Your task to perform on an android device: check data usage Image 0: 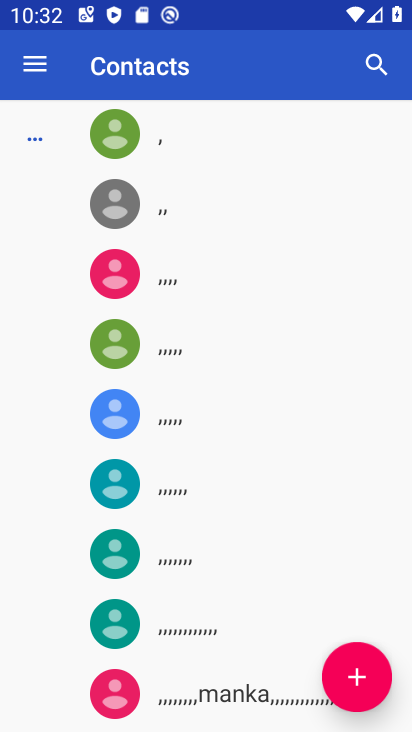
Step 0: press home button
Your task to perform on an android device: check data usage Image 1: 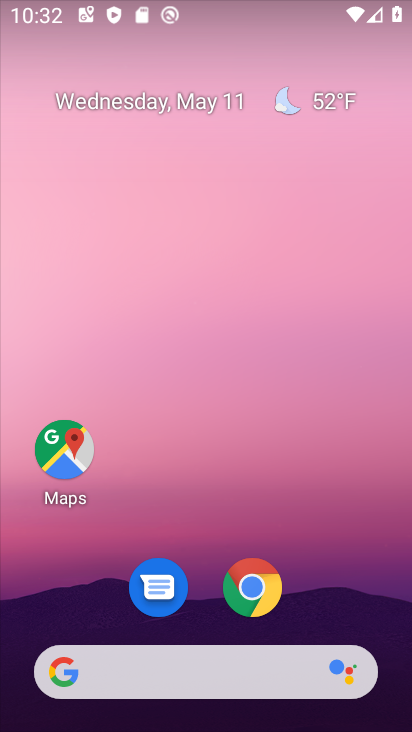
Step 1: drag from (222, 684) to (276, 317)
Your task to perform on an android device: check data usage Image 2: 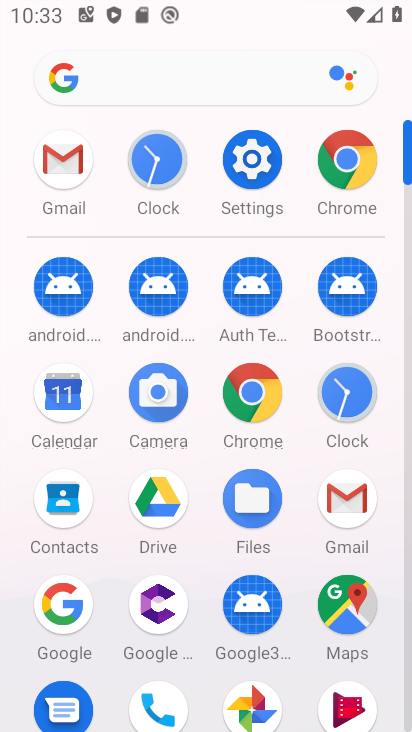
Step 2: click (255, 160)
Your task to perform on an android device: check data usage Image 3: 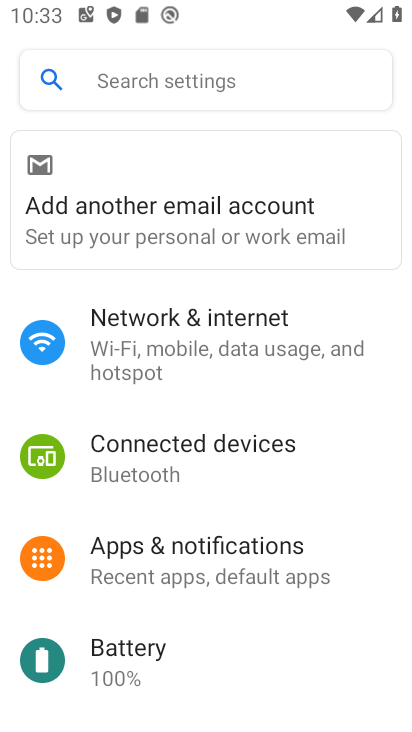
Step 3: click (192, 87)
Your task to perform on an android device: check data usage Image 4: 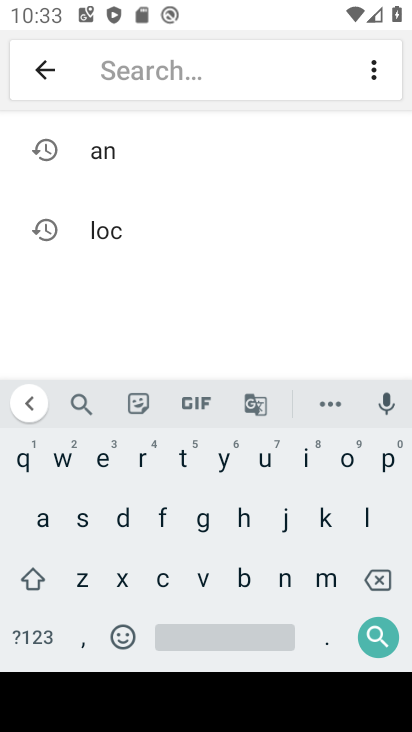
Step 4: click (123, 526)
Your task to perform on an android device: check data usage Image 5: 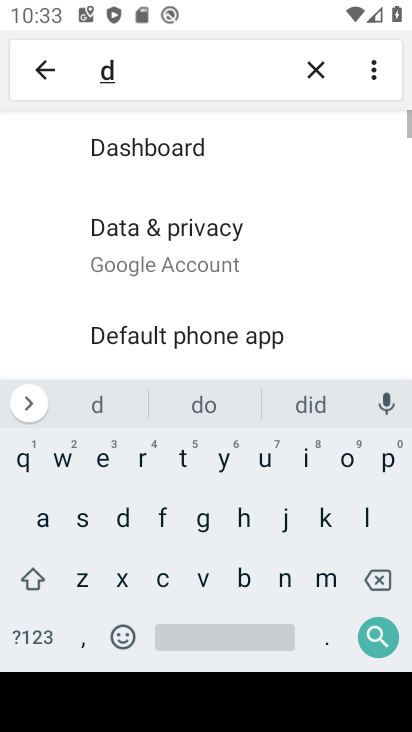
Step 5: click (39, 518)
Your task to perform on an android device: check data usage Image 6: 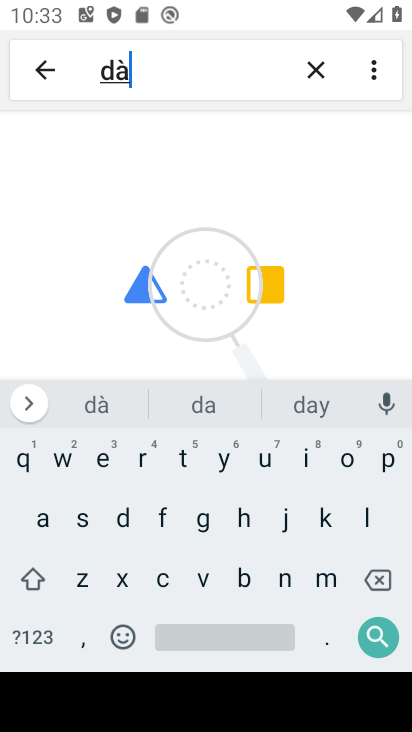
Step 6: click (377, 583)
Your task to perform on an android device: check data usage Image 7: 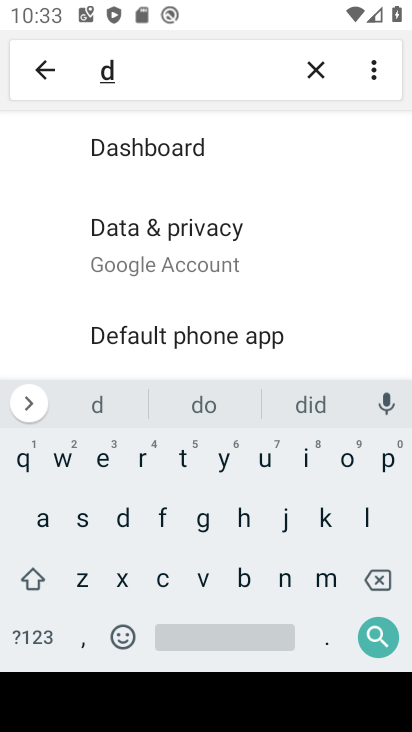
Step 7: click (40, 520)
Your task to perform on an android device: check data usage Image 8: 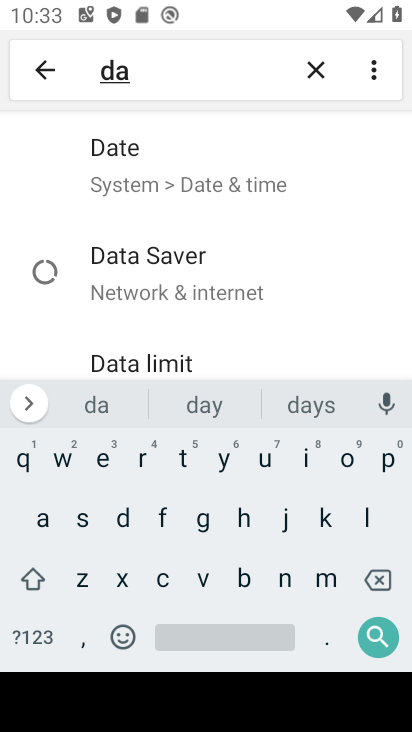
Step 8: click (179, 454)
Your task to perform on an android device: check data usage Image 9: 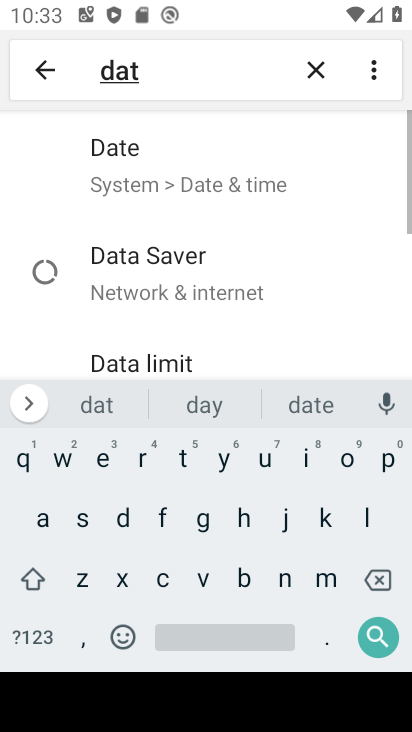
Step 9: click (36, 508)
Your task to perform on an android device: check data usage Image 10: 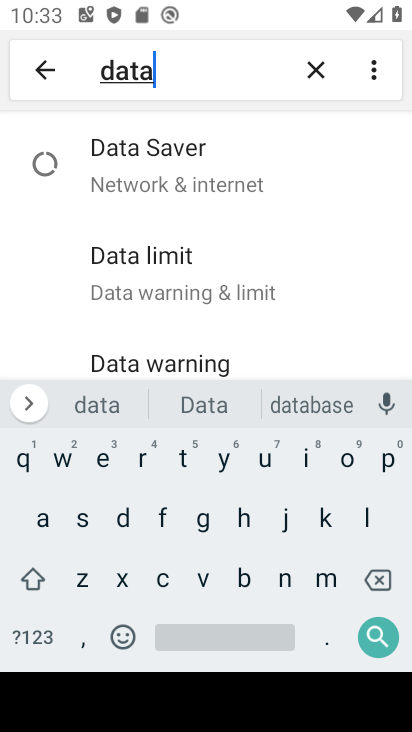
Step 10: click (214, 640)
Your task to perform on an android device: check data usage Image 11: 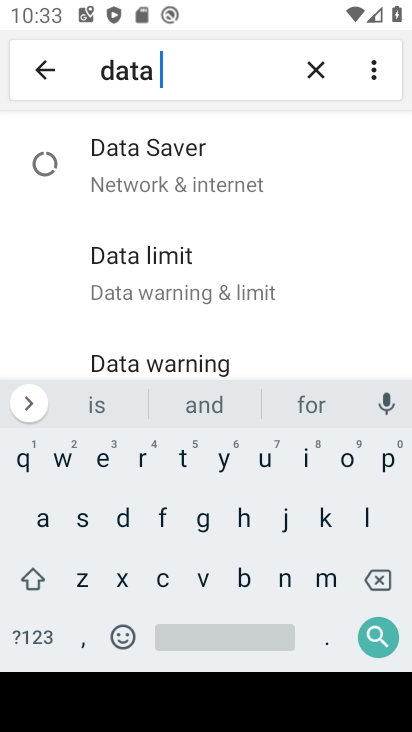
Step 11: click (267, 465)
Your task to perform on an android device: check data usage Image 12: 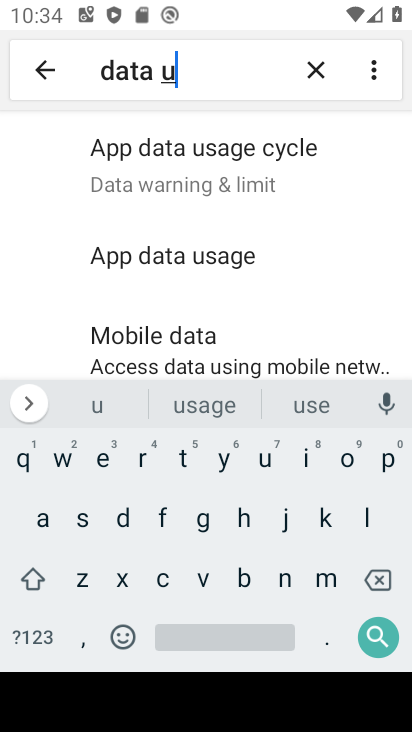
Step 12: click (188, 263)
Your task to perform on an android device: check data usage Image 13: 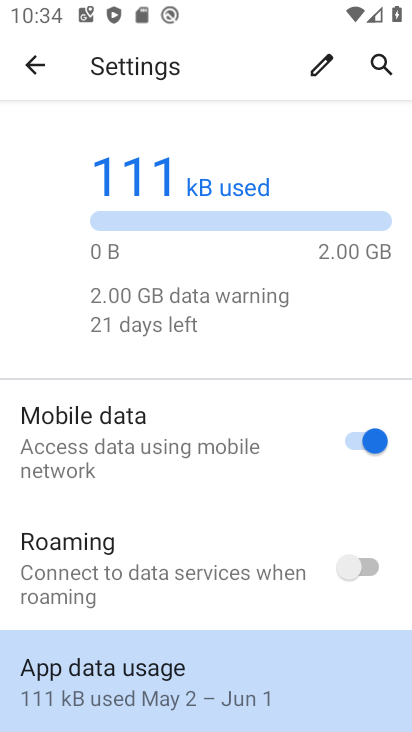
Step 13: click (153, 691)
Your task to perform on an android device: check data usage Image 14: 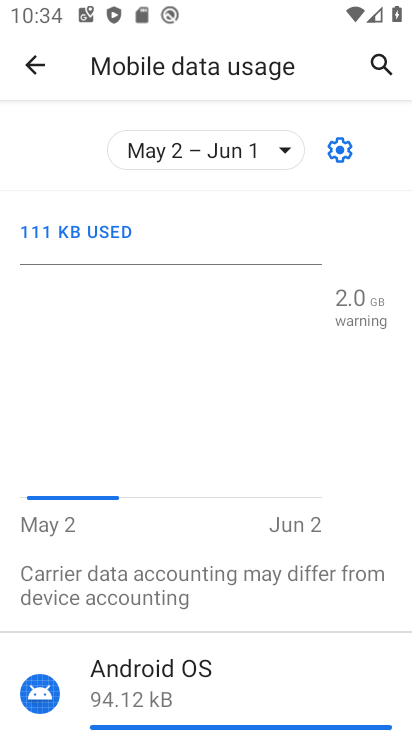
Step 14: task complete